Your task to perform on an android device: Play the last video I watched on Youtube Image 0: 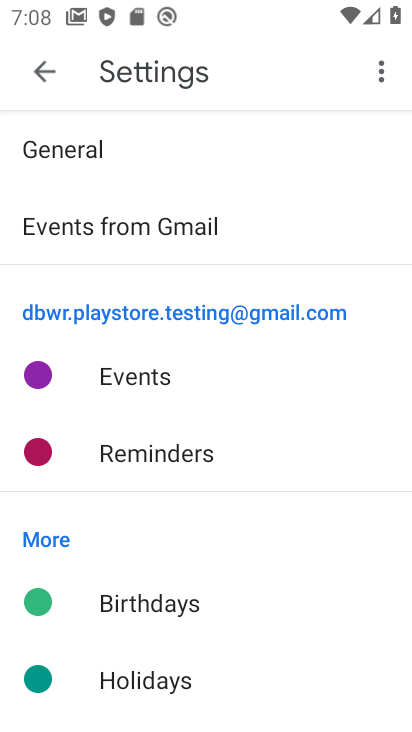
Step 0: press home button
Your task to perform on an android device: Play the last video I watched on Youtube Image 1: 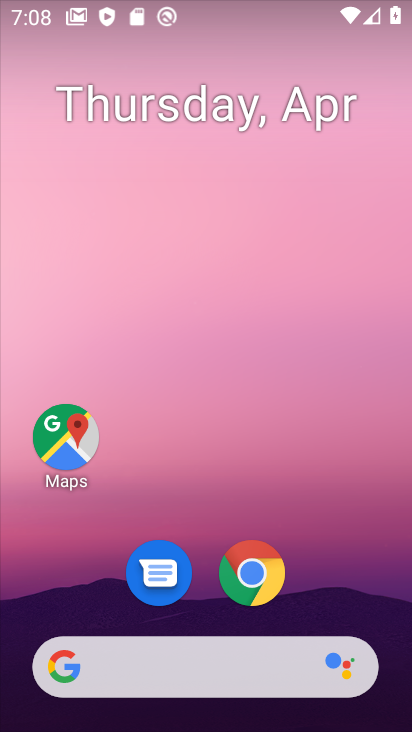
Step 1: drag from (377, 601) to (350, 208)
Your task to perform on an android device: Play the last video I watched on Youtube Image 2: 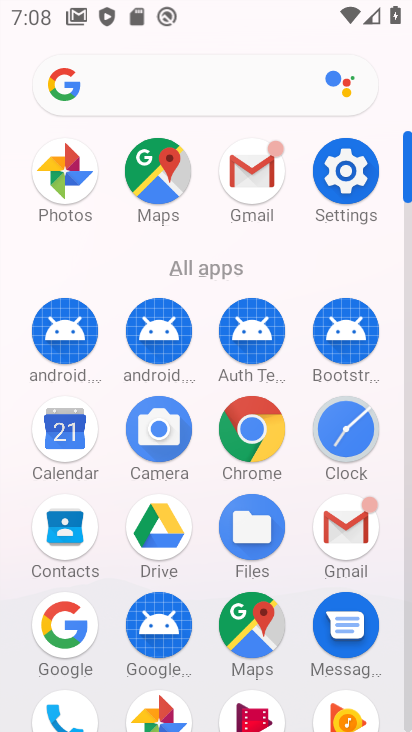
Step 2: drag from (405, 121) to (397, 76)
Your task to perform on an android device: Play the last video I watched on Youtube Image 3: 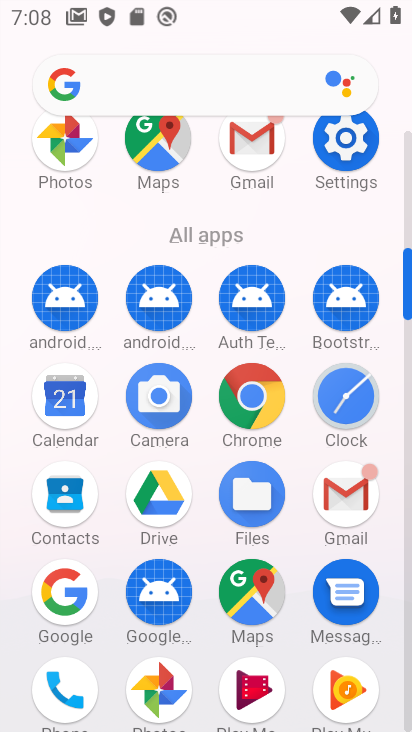
Step 3: drag from (410, 194) to (411, 136)
Your task to perform on an android device: Play the last video I watched on Youtube Image 4: 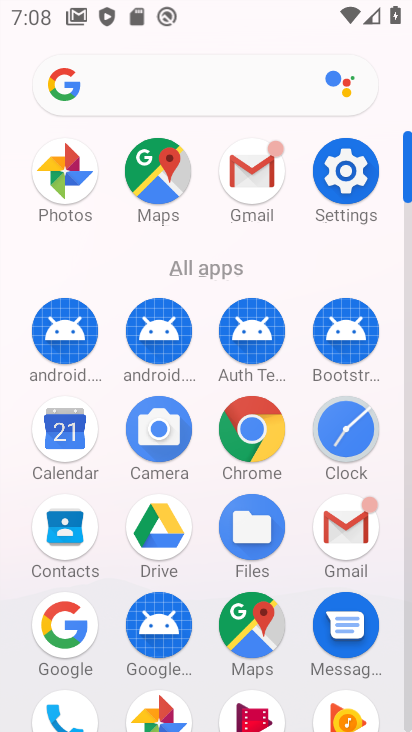
Step 4: drag from (406, 152) to (406, 114)
Your task to perform on an android device: Play the last video I watched on Youtube Image 5: 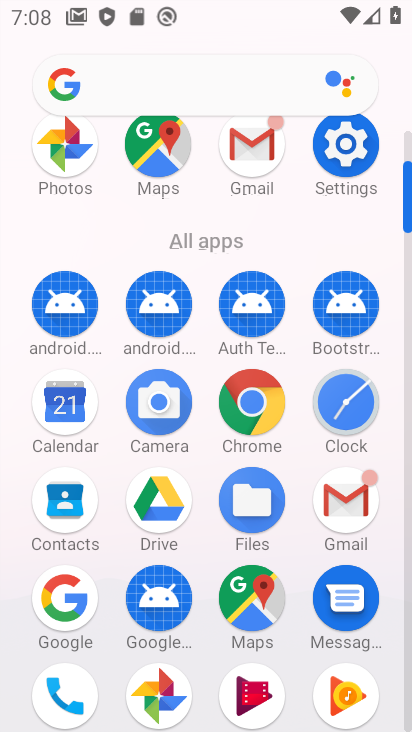
Step 5: drag from (406, 174) to (411, 83)
Your task to perform on an android device: Play the last video I watched on Youtube Image 6: 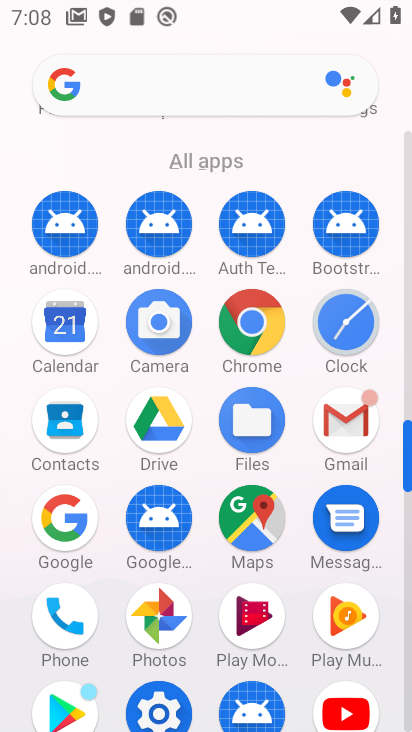
Step 6: click (345, 694)
Your task to perform on an android device: Play the last video I watched on Youtube Image 7: 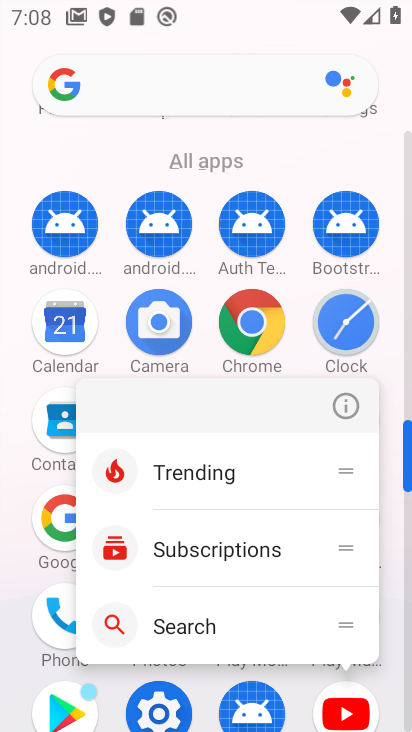
Step 7: click (345, 710)
Your task to perform on an android device: Play the last video I watched on Youtube Image 8: 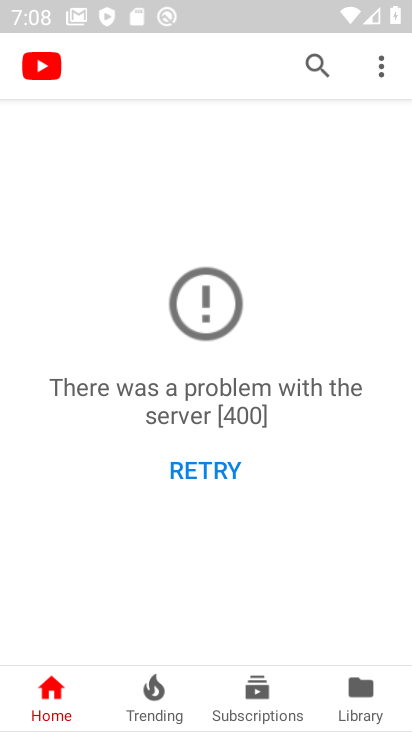
Step 8: task complete